Your task to perform on an android device: open chrome and create a bookmark for the current page Image 0: 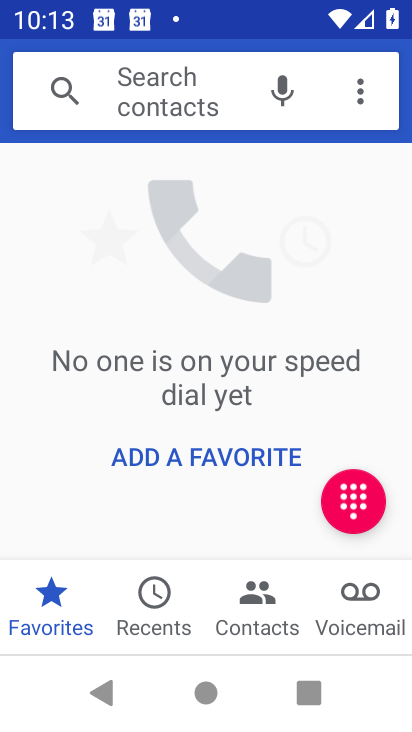
Step 0: press back button
Your task to perform on an android device: open chrome and create a bookmark for the current page Image 1: 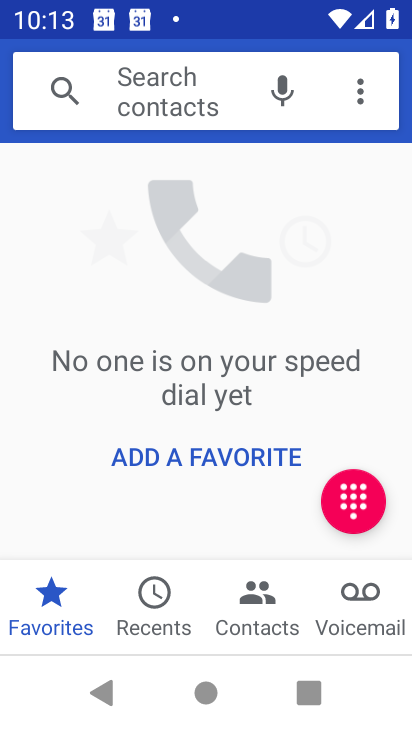
Step 1: press back button
Your task to perform on an android device: open chrome and create a bookmark for the current page Image 2: 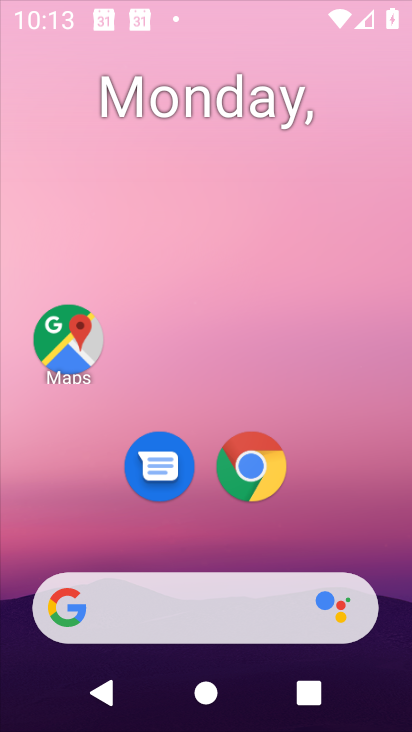
Step 2: press back button
Your task to perform on an android device: open chrome and create a bookmark for the current page Image 3: 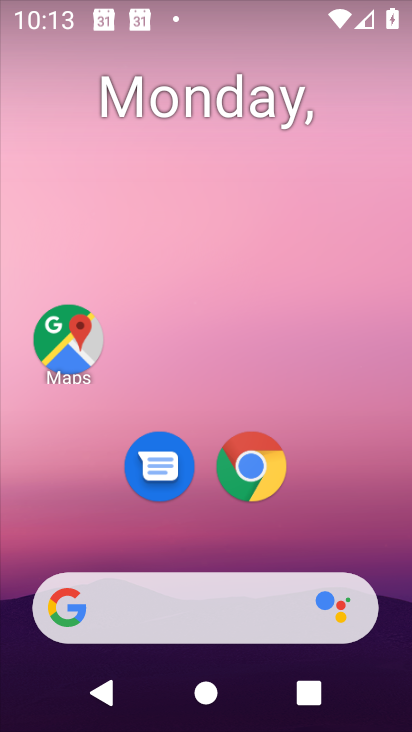
Step 3: click (244, 470)
Your task to perform on an android device: open chrome and create a bookmark for the current page Image 4: 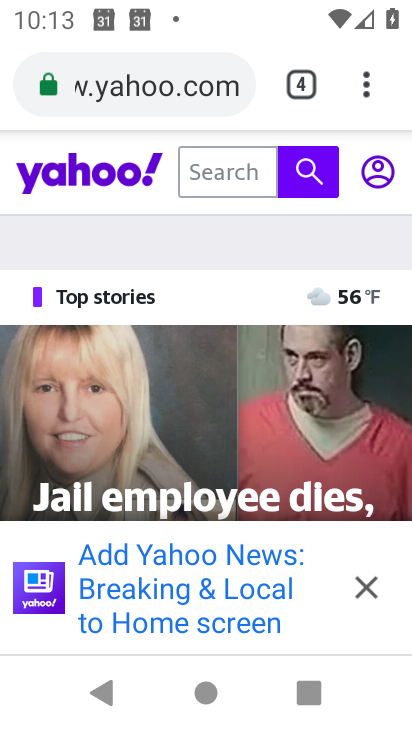
Step 4: click (367, 78)
Your task to perform on an android device: open chrome and create a bookmark for the current page Image 5: 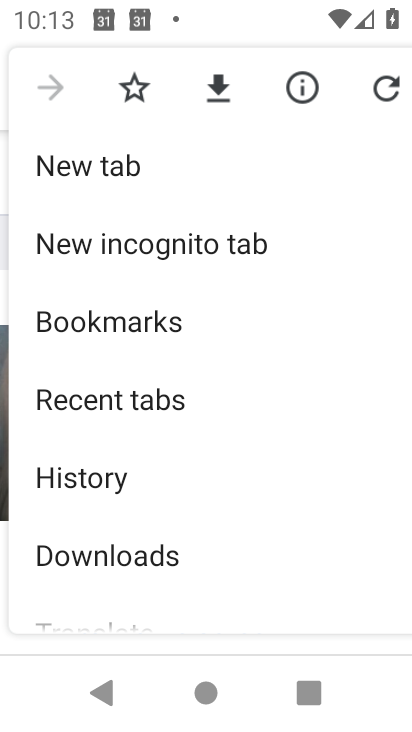
Step 5: drag from (367, 78) to (126, 191)
Your task to perform on an android device: open chrome and create a bookmark for the current page Image 6: 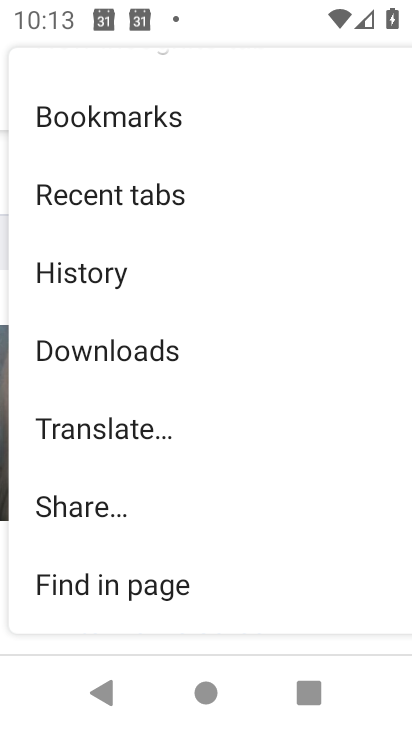
Step 6: click (117, 113)
Your task to perform on an android device: open chrome and create a bookmark for the current page Image 7: 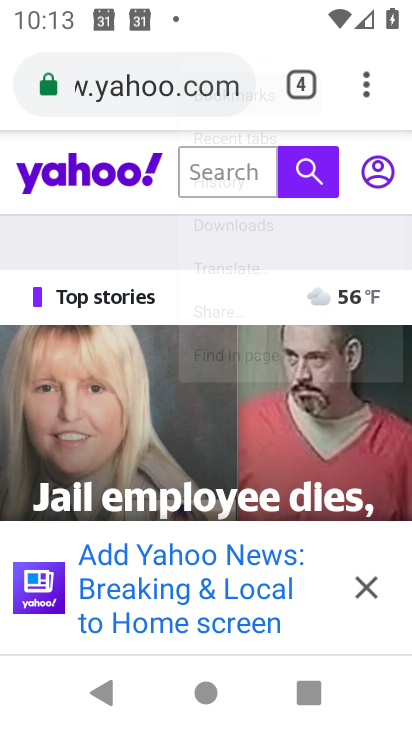
Step 7: click (117, 114)
Your task to perform on an android device: open chrome and create a bookmark for the current page Image 8: 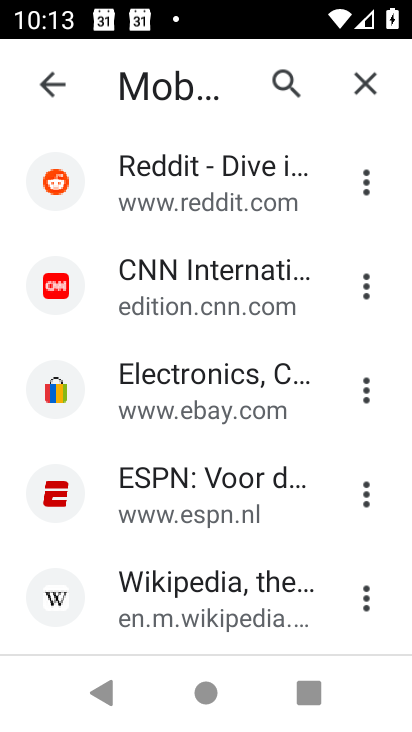
Step 8: click (355, 180)
Your task to perform on an android device: open chrome and create a bookmark for the current page Image 9: 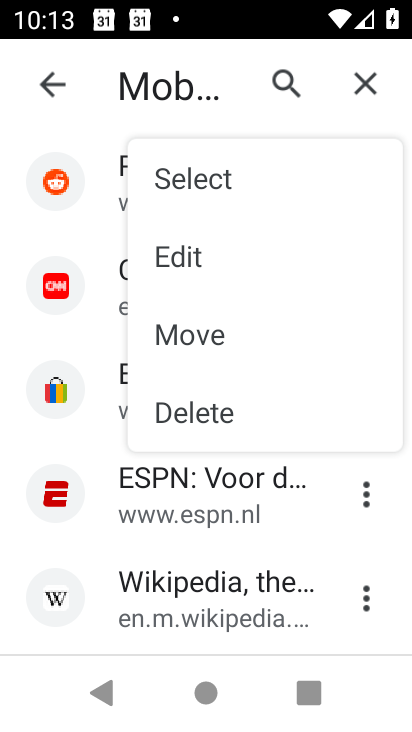
Step 9: click (190, 186)
Your task to perform on an android device: open chrome and create a bookmark for the current page Image 10: 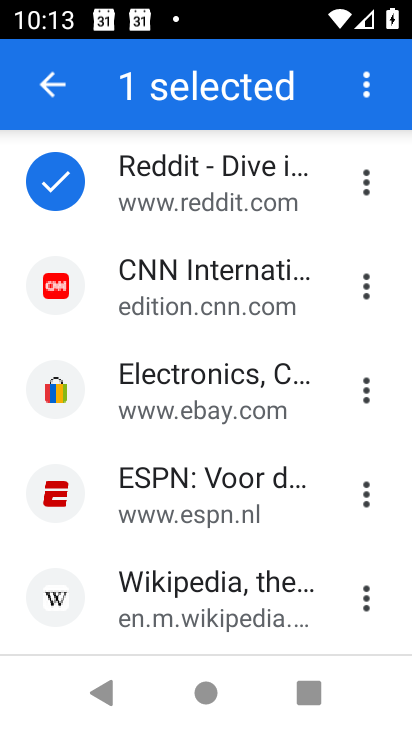
Step 10: click (372, 77)
Your task to perform on an android device: open chrome and create a bookmark for the current page Image 11: 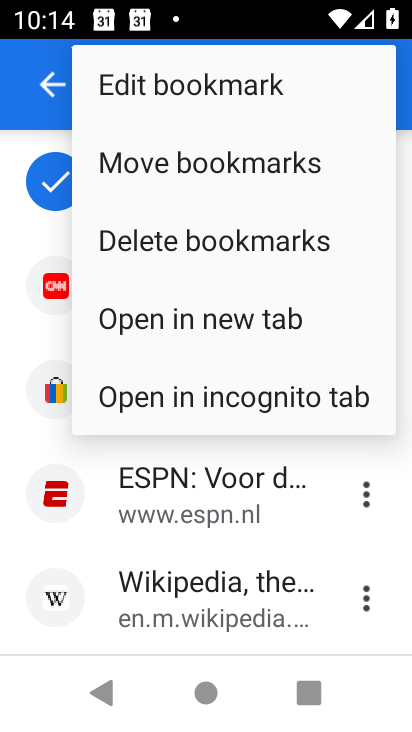
Step 11: click (209, 160)
Your task to perform on an android device: open chrome and create a bookmark for the current page Image 12: 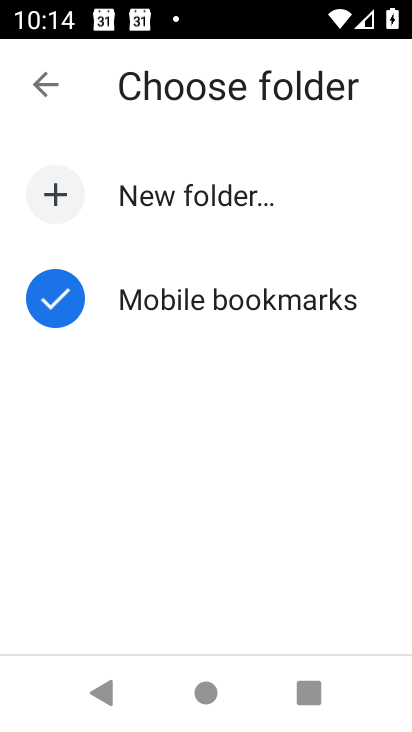
Step 12: click (150, 198)
Your task to perform on an android device: open chrome and create a bookmark for the current page Image 13: 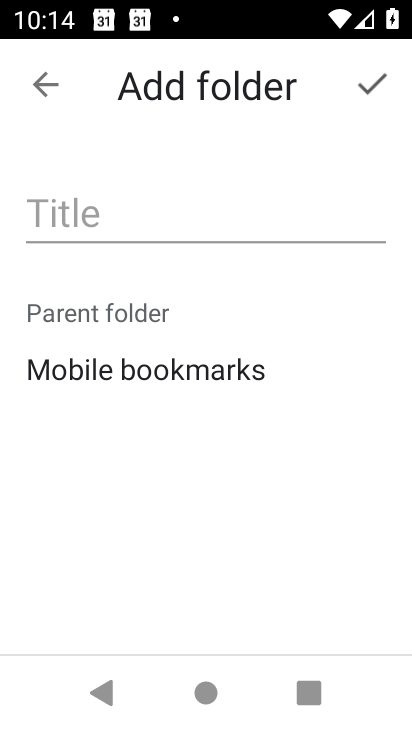
Step 13: click (70, 216)
Your task to perform on an android device: open chrome and create a bookmark for the current page Image 14: 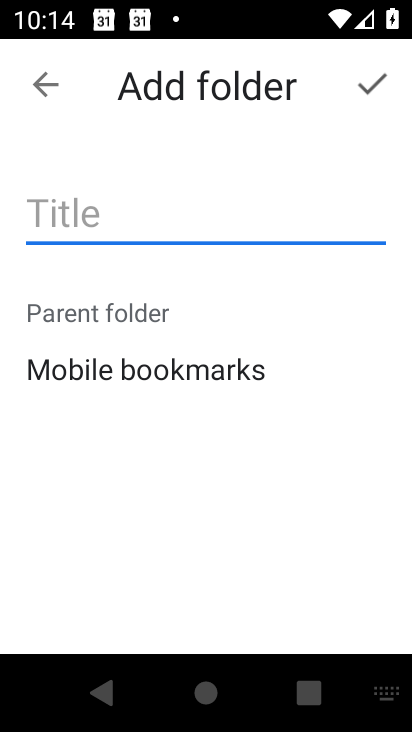
Step 14: type "ram"
Your task to perform on an android device: open chrome and create a bookmark for the current page Image 15: 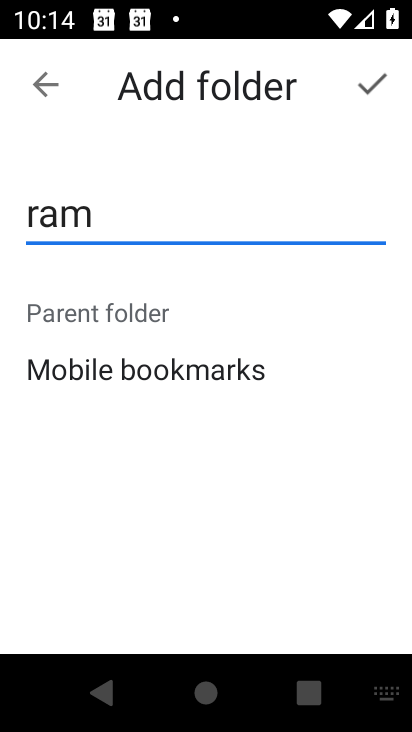
Step 15: task complete